Your task to perform on an android device: open chrome privacy settings Image 0: 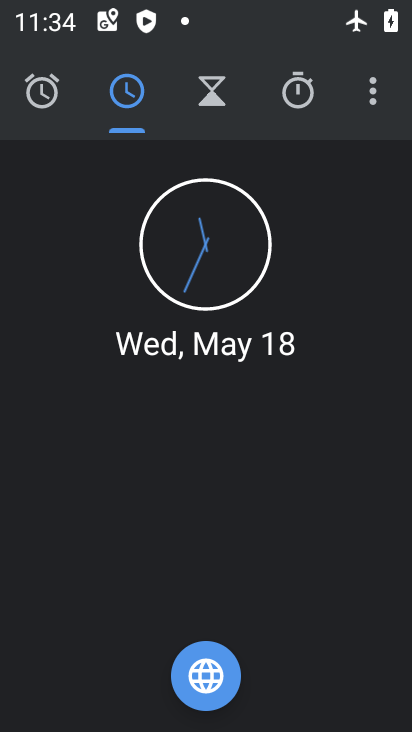
Step 0: press home button
Your task to perform on an android device: open chrome privacy settings Image 1: 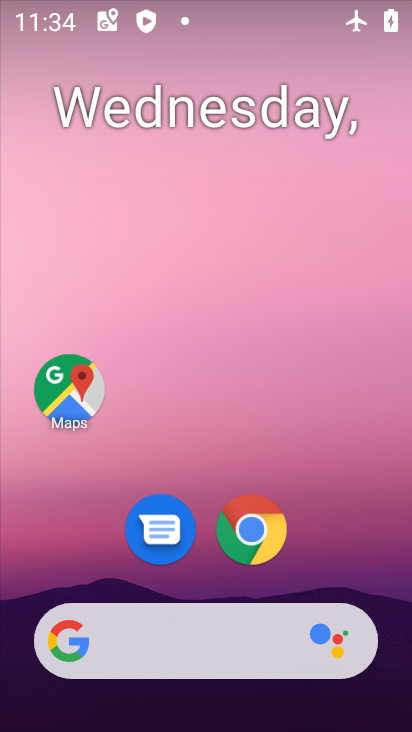
Step 1: click (246, 535)
Your task to perform on an android device: open chrome privacy settings Image 2: 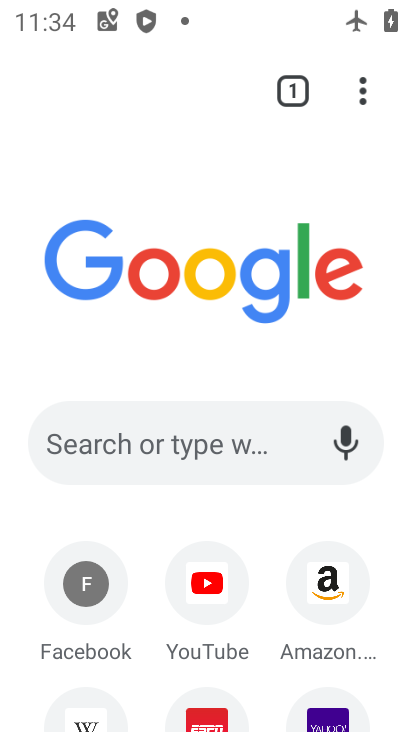
Step 2: click (371, 101)
Your task to perform on an android device: open chrome privacy settings Image 3: 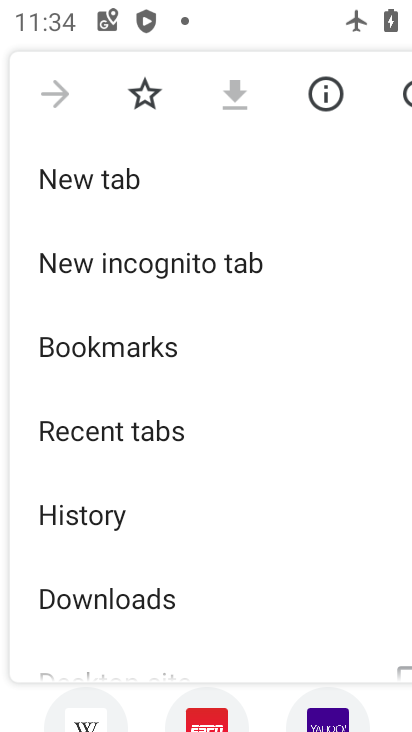
Step 3: drag from (177, 612) to (162, 257)
Your task to perform on an android device: open chrome privacy settings Image 4: 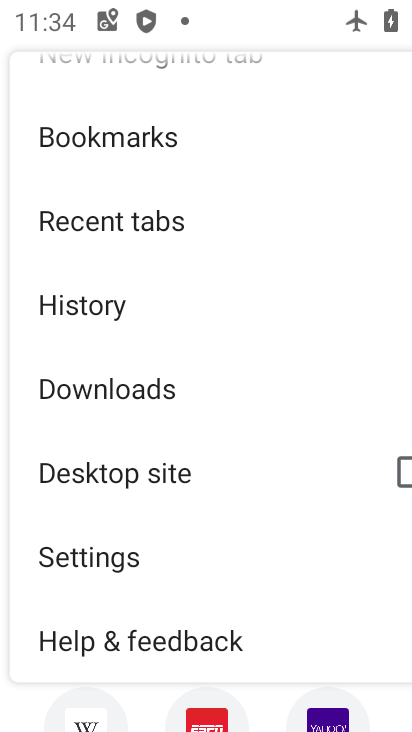
Step 4: click (120, 575)
Your task to perform on an android device: open chrome privacy settings Image 5: 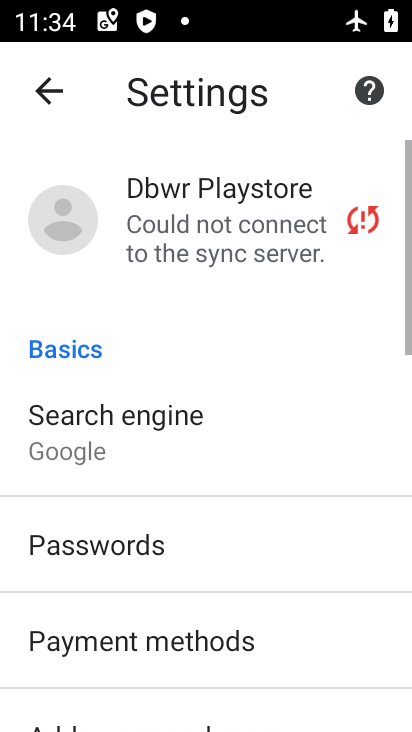
Step 5: drag from (129, 576) to (108, 83)
Your task to perform on an android device: open chrome privacy settings Image 6: 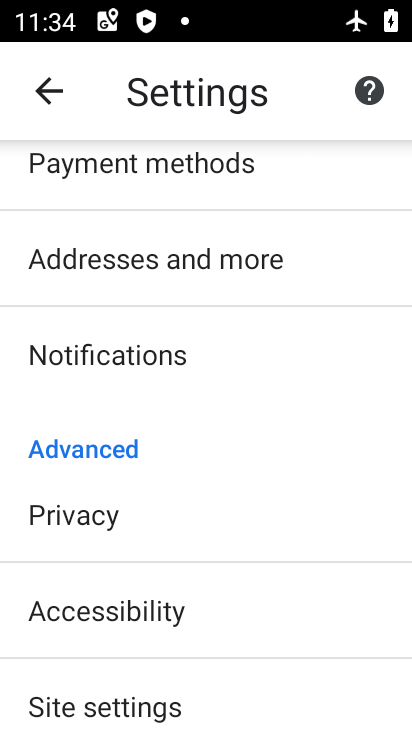
Step 6: click (78, 513)
Your task to perform on an android device: open chrome privacy settings Image 7: 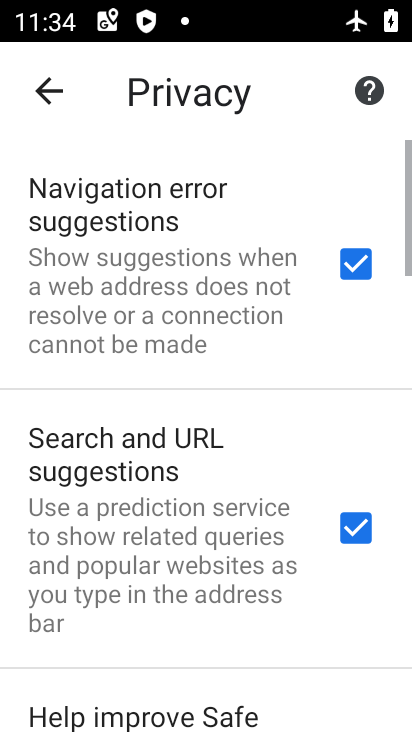
Step 7: task complete